Your task to perform on an android device: Open Google Maps and go to "Timeline" Image 0: 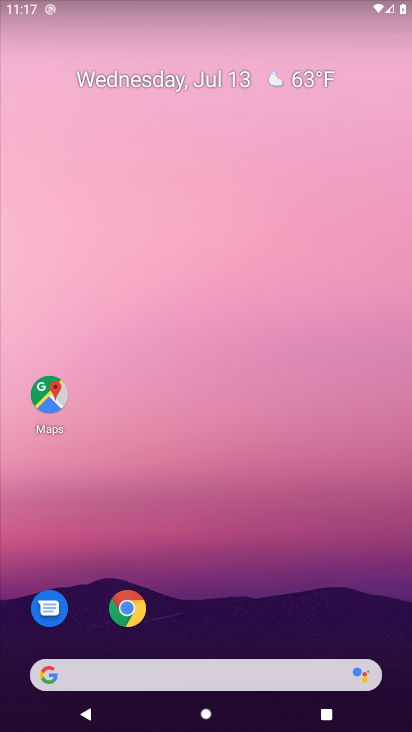
Step 0: press home button
Your task to perform on an android device: Open Google Maps and go to "Timeline" Image 1: 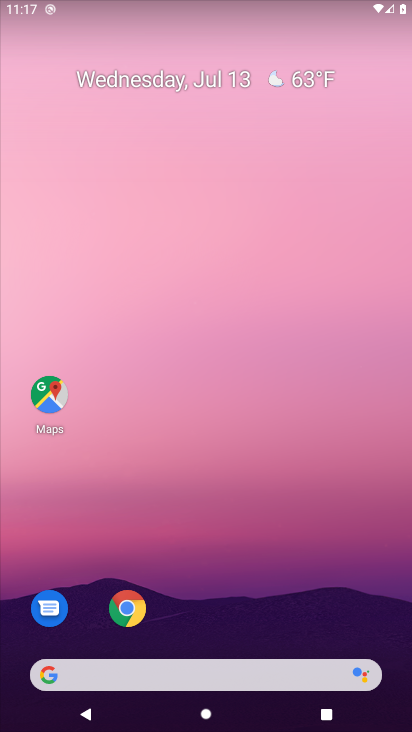
Step 1: click (59, 386)
Your task to perform on an android device: Open Google Maps and go to "Timeline" Image 2: 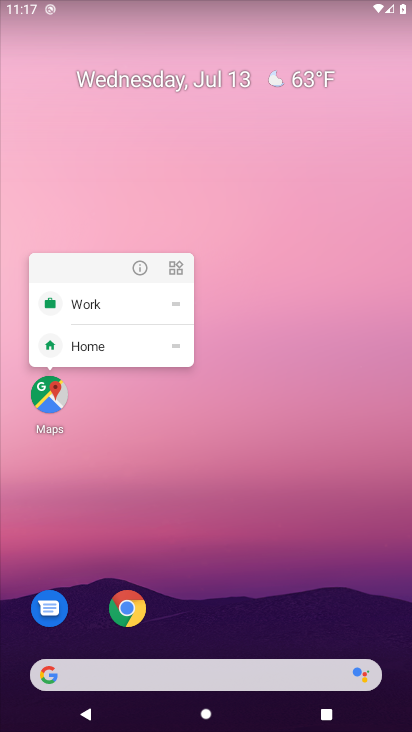
Step 2: click (59, 386)
Your task to perform on an android device: Open Google Maps and go to "Timeline" Image 3: 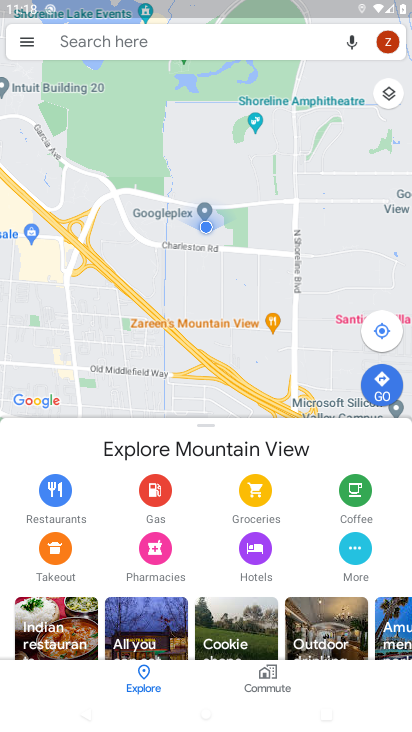
Step 3: click (31, 41)
Your task to perform on an android device: Open Google Maps and go to "Timeline" Image 4: 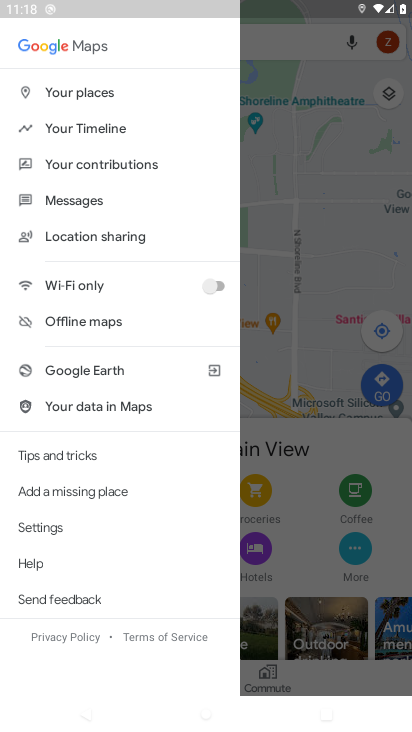
Step 4: click (69, 124)
Your task to perform on an android device: Open Google Maps and go to "Timeline" Image 5: 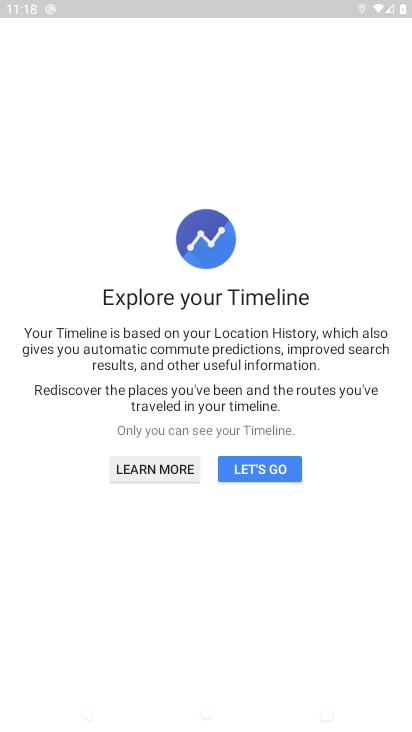
Step 5: click (280, 469)
Your task to perform on an android device: Open Google Maps and go to "Timeline" Image 6: 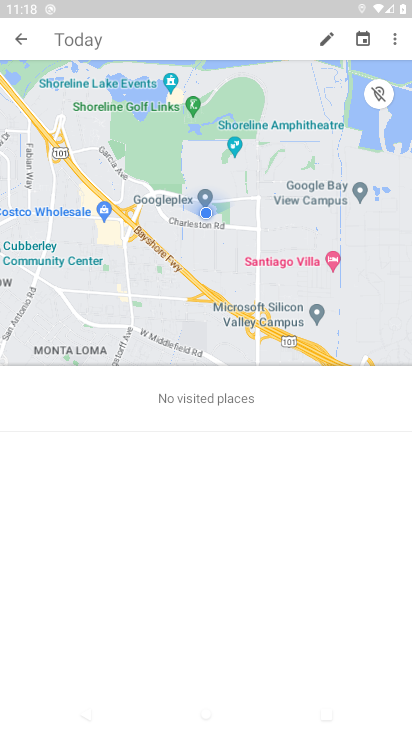
Step 6: task complete